Your task to perform on an android device: Go to privacy settings Image 0: 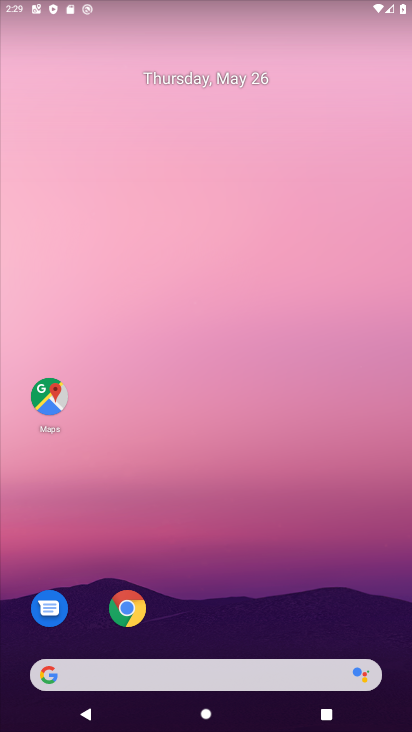
Step 0: drag from (307, 586) to (401, 47)
Your task to perform on an android device: Go to privacy settings Image 1: 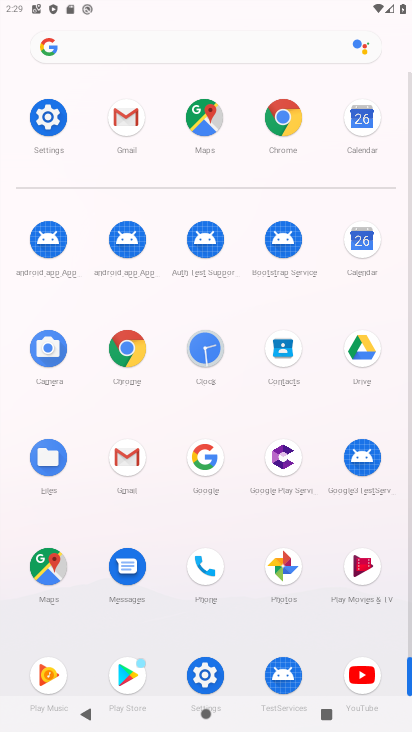
Step 1: click (52, 126)
Your task to perform on an android device: Go to privacy settings Image 2: 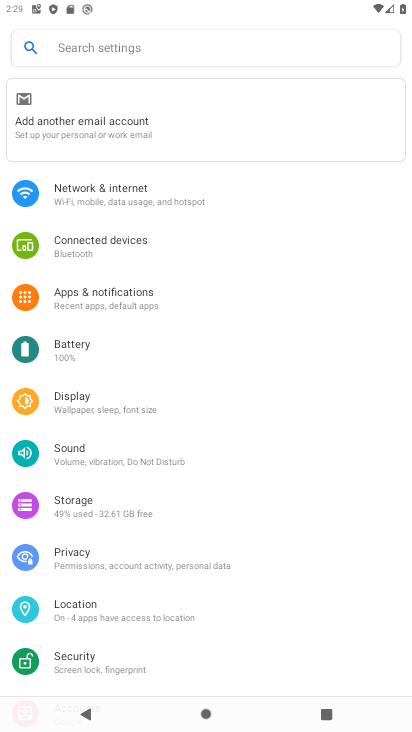
Step 2: click (64, 554)
Your task to perform on an android device: Go to privacy settings Image 3: 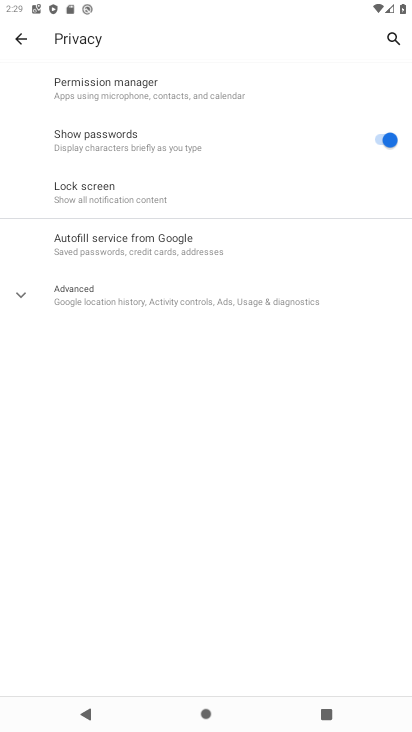
Step 3: task complete